Your task to perform on an android device: open sync settings in chrome Image 0: 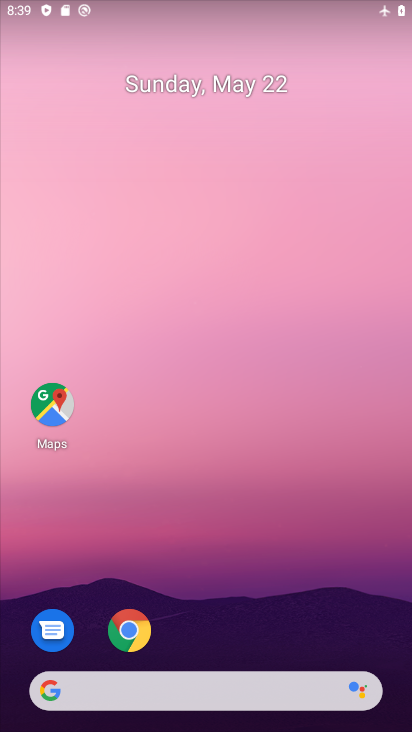
Step 0: click (143, 634)
Your task to perform on an android device: open sync settings in chrome Image 1: 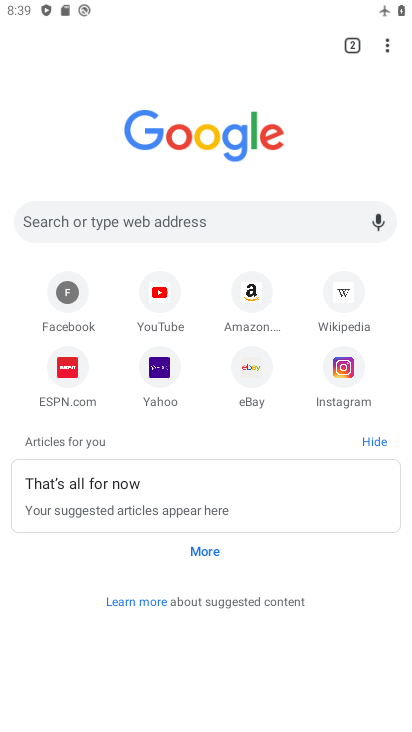
Step 1: click (386, 43)
Your task to perform on an android device: open sync settings in chrome Image 2: 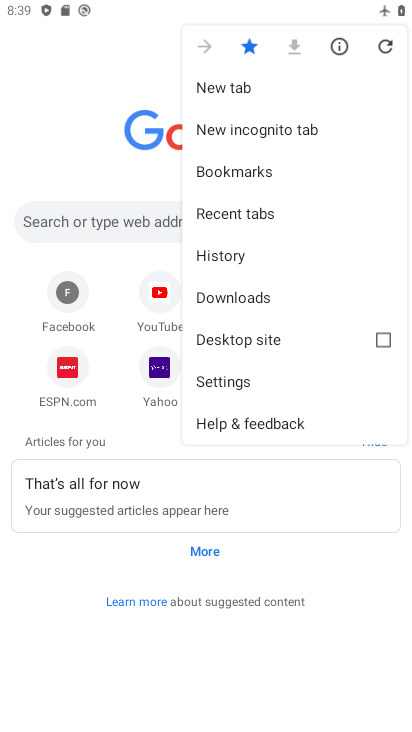
Step 2: click (232, 383)
Your task to perform on an android device: open sync settings in chrome Image 3: 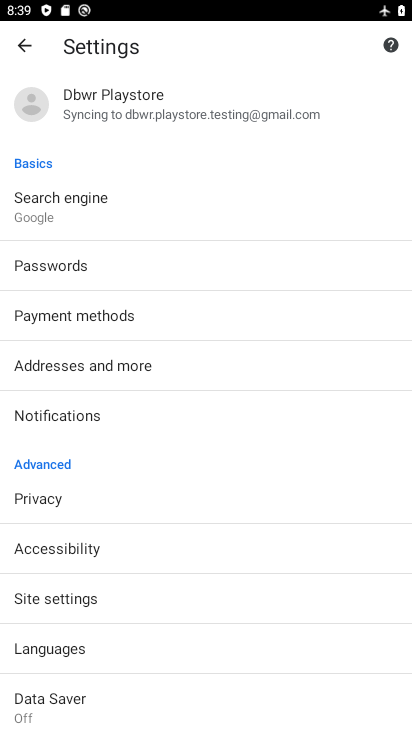
Step 3: click (49, 595)
Your task to perform on an android device: open sync settings in chrome Image 4: 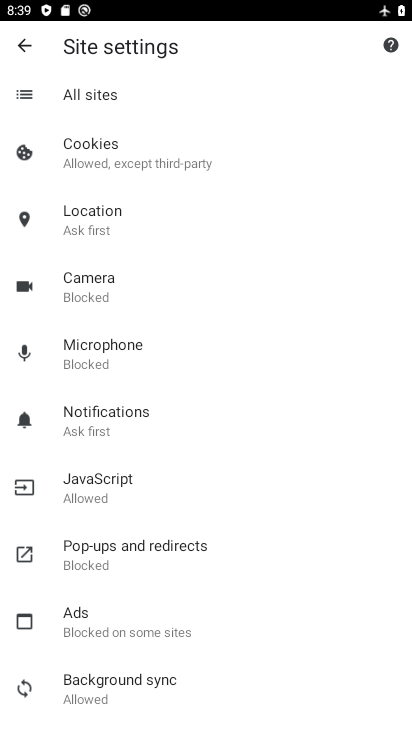
Step 4: drag from (274, 680) to (264, 456)
Your task to perform on an android device: open sync settings in chrome Image 5: 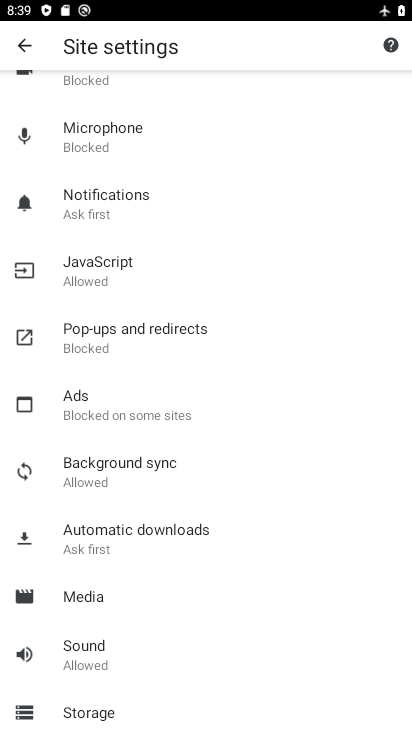
Step 5: click (117, 463)
Your task to perform on an android device: open sync settings in chrome Image 6: 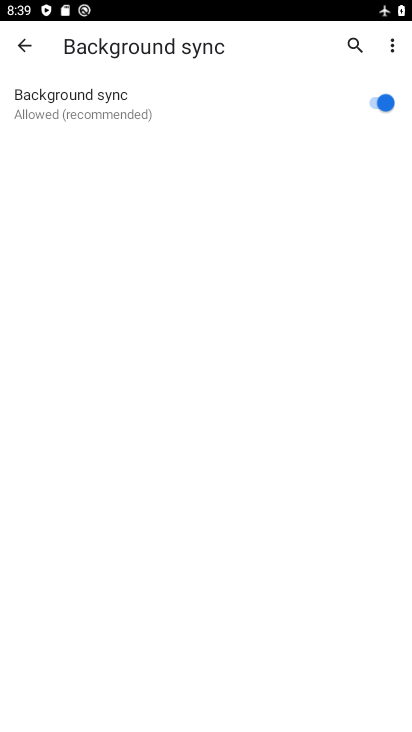
Step 6: task complete